Your task to perform on an android device: star an email in the gmail app Image 0: 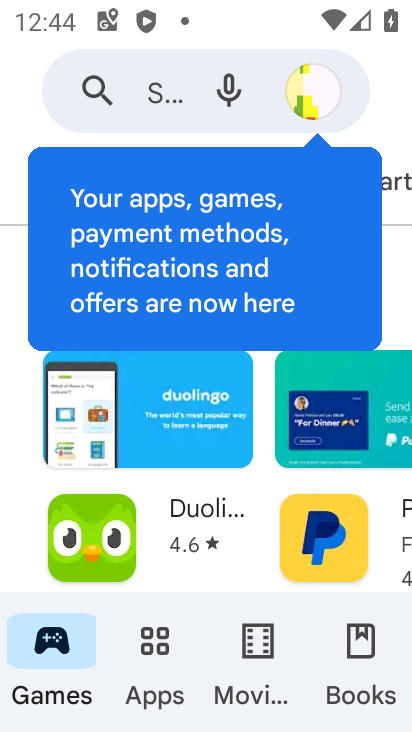
Step 0: press home button
Your task to perform on an android device: star an email in the gmail app Image 1: 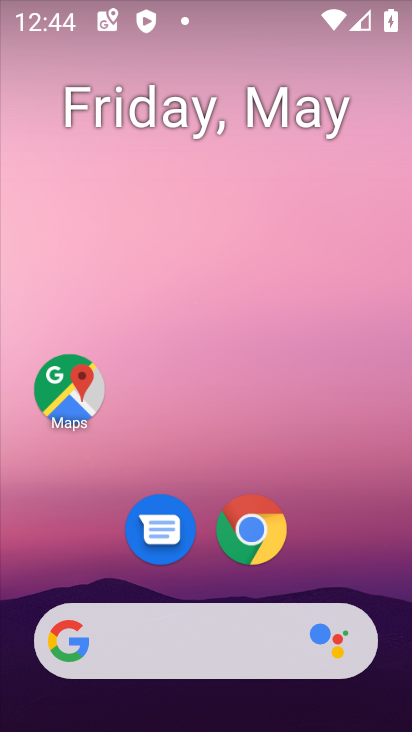
Step 1: drag from (336, 548) to (90, 75)
Your task to perform on an android device: star an email in the gmail app Image 2: 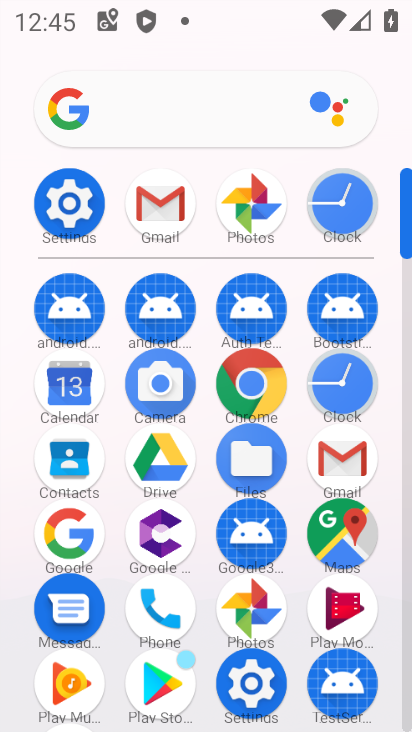
Step 2: click (161, 224)
Your task to perform on an android device: star an email in the gmail app Image 3: 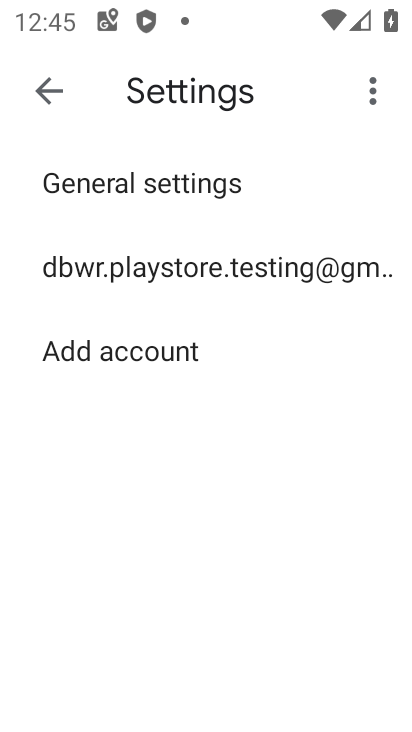
Step 3: press back button
Your task to perform on an android device: star an email in the gmail app Image 4: 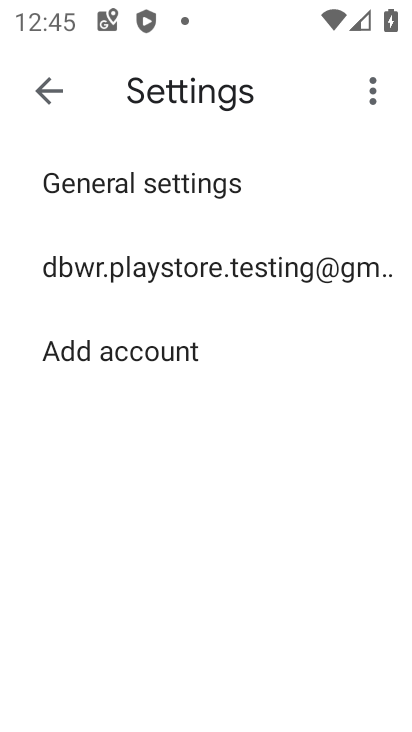
Step 4: click (48, 96)
Your task to perform on an android device: star an email in the gmail app Image 5: 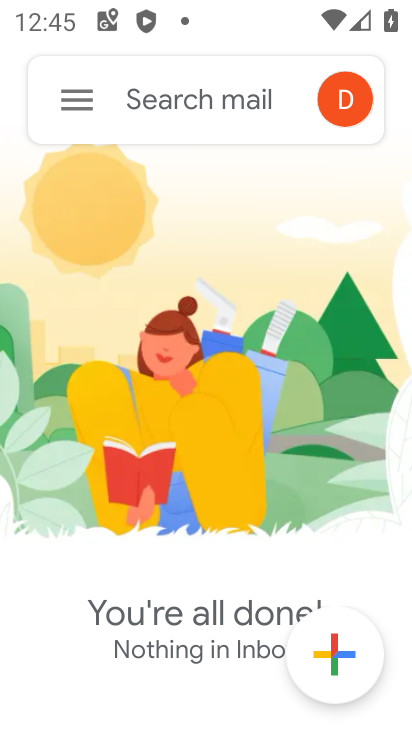
Step 5: task complete